Your task to perform on an android device: create a new album in the google photos Image 0: 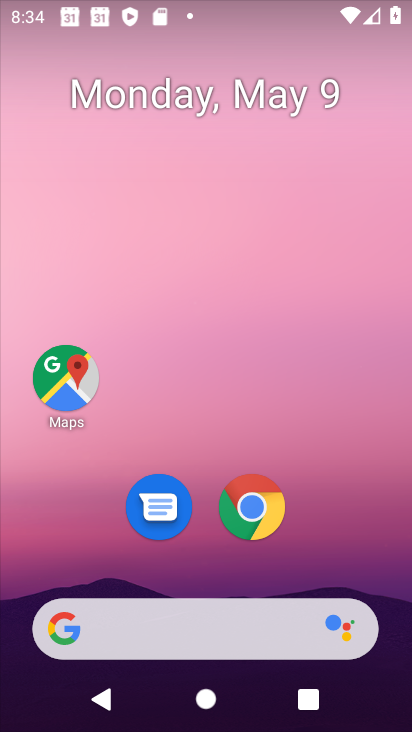
Step 0: drag from (324, 571) to (268, 18)
Your task to perform on an android device: create a new album in the google photos Image 1: 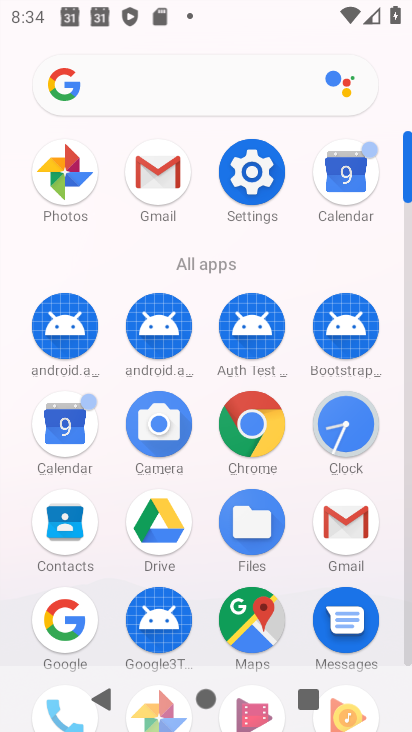
Step 1: click (64, 171)
Your task to perform on an android device: create a new album in the google photos Image 2: 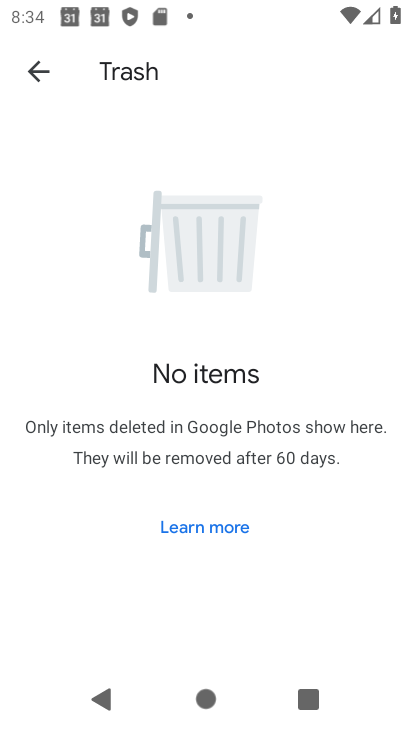
Step 2: press back button
Your task to perform on an android device: create a new album in the google photos Image 3: 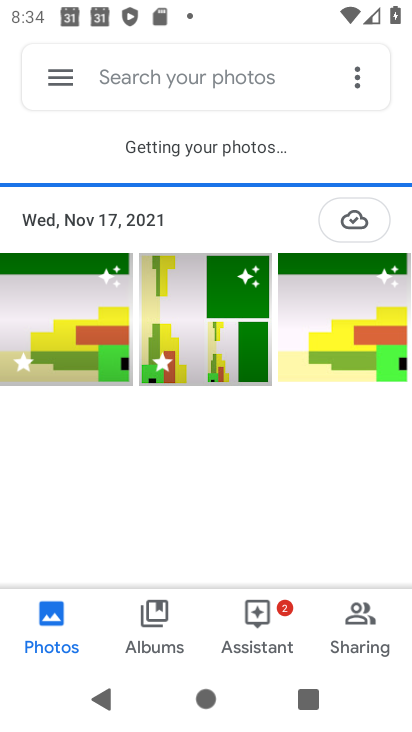
Step 3: click (355, 82)
Your task to perform on an android device: create a new album in the google photos Image 4: 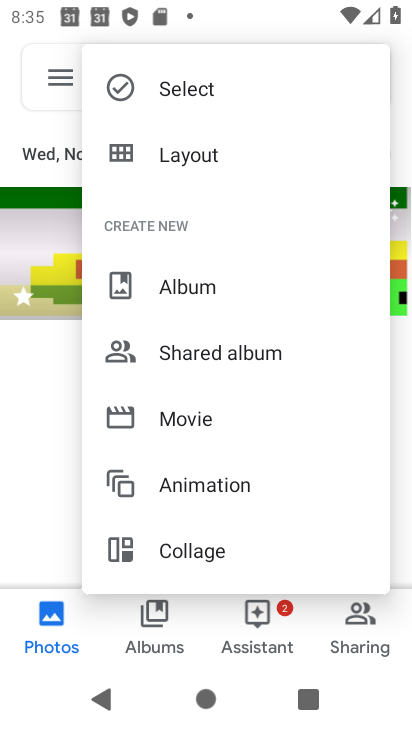
Step 4: click (179, 279)
Your task to perform on an android device: create a new album in the google photos Image 5: 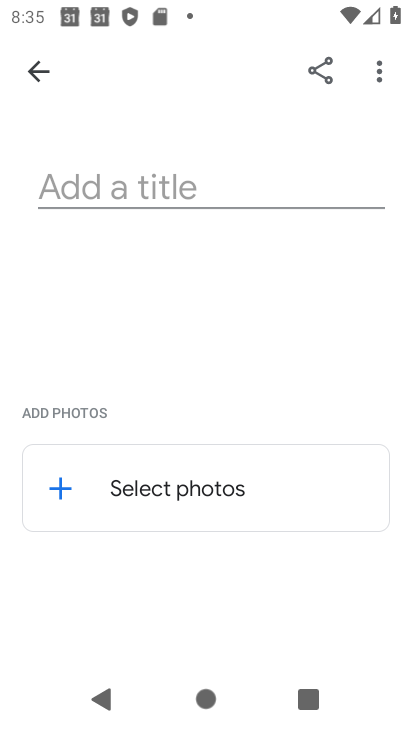
Step 5: click (309, 185)
Your task to perform on an android device: create a new album in the google photos Image 6: 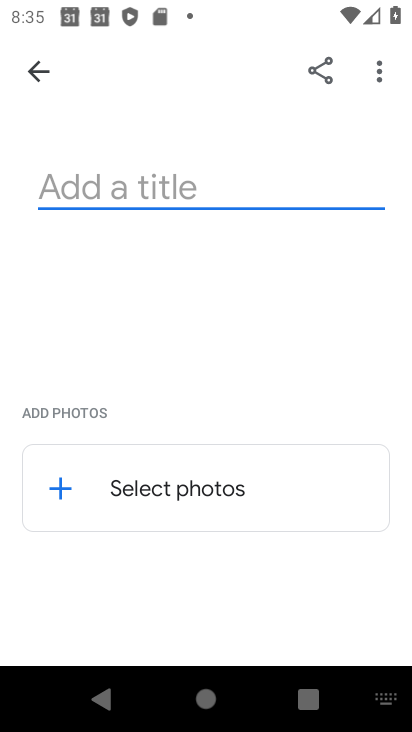
Step 6: type "Photos"
Your task to perform on an android device: create a new album in the google photos Image 7: 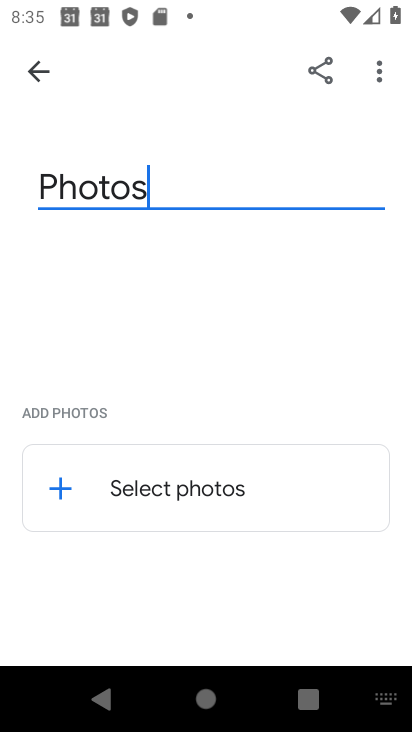
Step 7: click (200, 489)
Your task to perform on an android device: create a new album in the google photos Image 8: 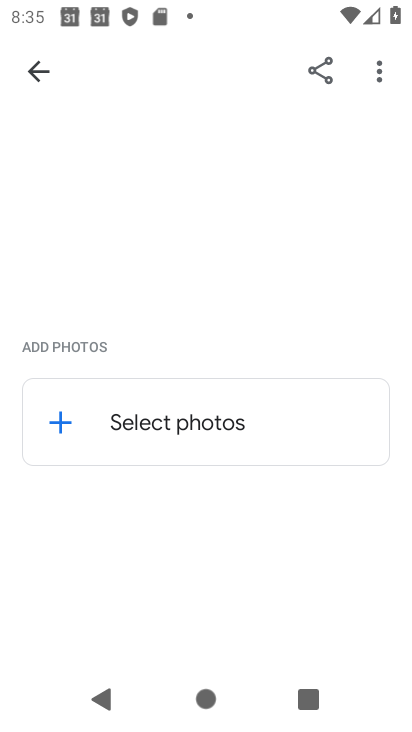
Step 8: click (179, 424)
Your task to perform on an android device: create a new album in the google photos Image 9: 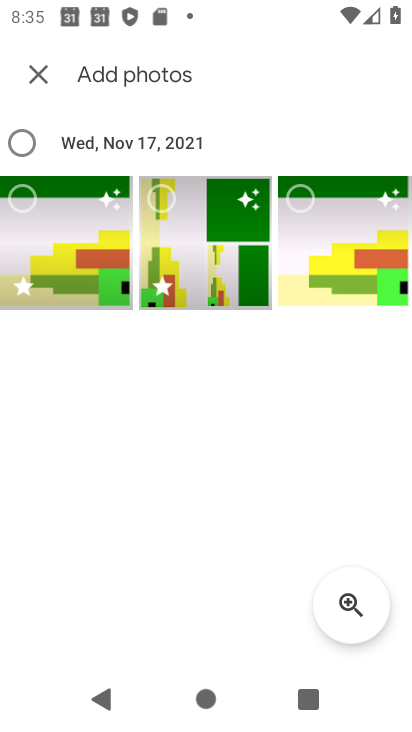
Step 9: click (18, 197)
Your task to perform on an android device: create a new album in the google photos Image 10: 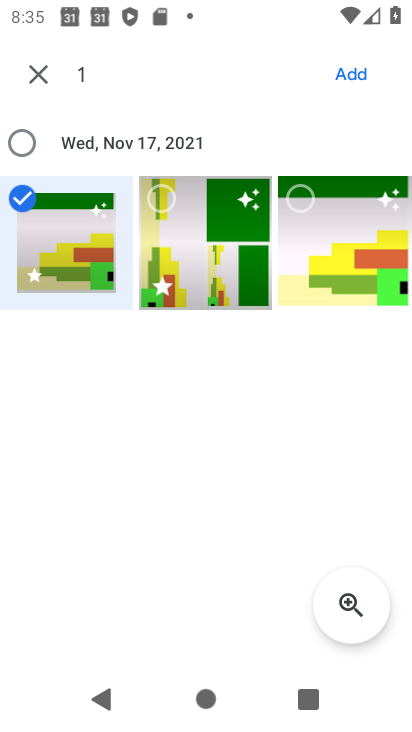
Step 10: click (338, 72)
Your task to perform on an android device: create a new album in the google photos Image 11: 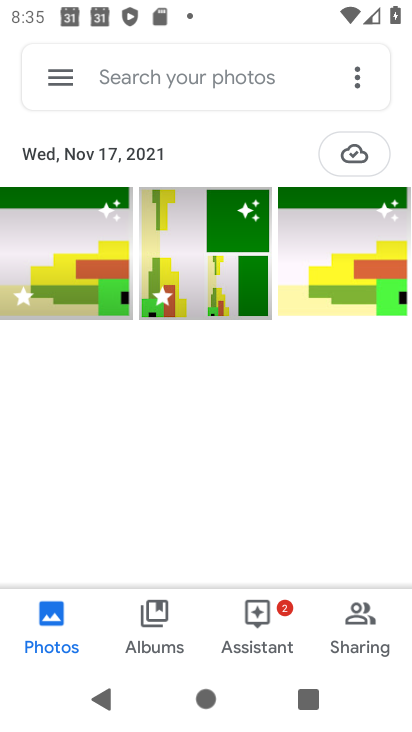
Step 11: task complete